Your task to perform on an android device: Open calendar and show me the third week of next month Image 0: 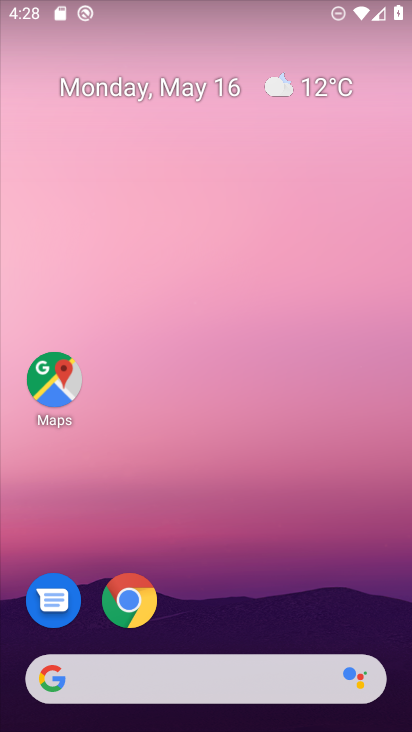
Step 0: drag from (339, 590) to (246, 117)
Your task to perform on an android device: Open calendar and show me the third week of next month Image 1: 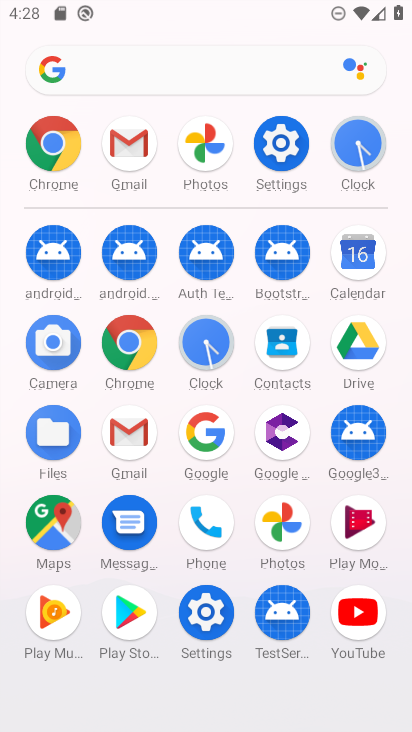
Step 1: click (365, 254)
Your task to perform on an android device: Open calendar and show me the third week of next month Image 2: 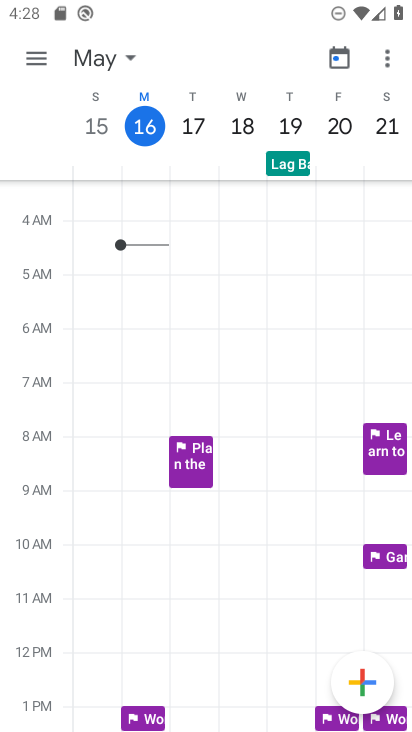
Step 2: click (111, 59)
Your task to perform on an android device: Open calendar and show me the third week of next month Image 3: 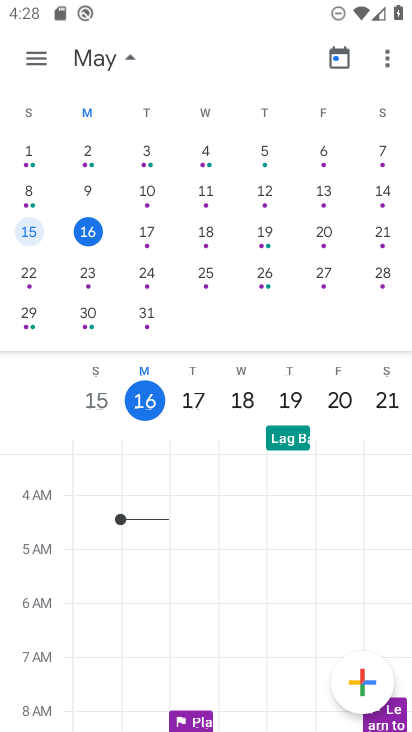
Step 3: drag from (334, 346) to (13, 295)
Your task to perform on an android device: Open calendar and show me the third week of next month Image 4: 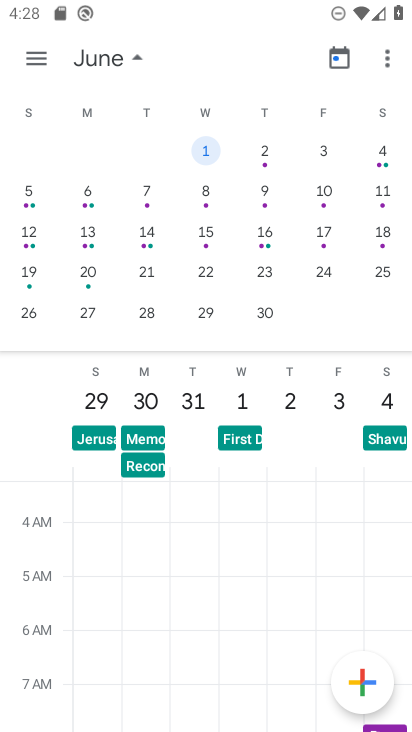
Step 4: click (33, 273)
Your task to perform on an android device: Open calendar and show me the third week of next month Image 5: 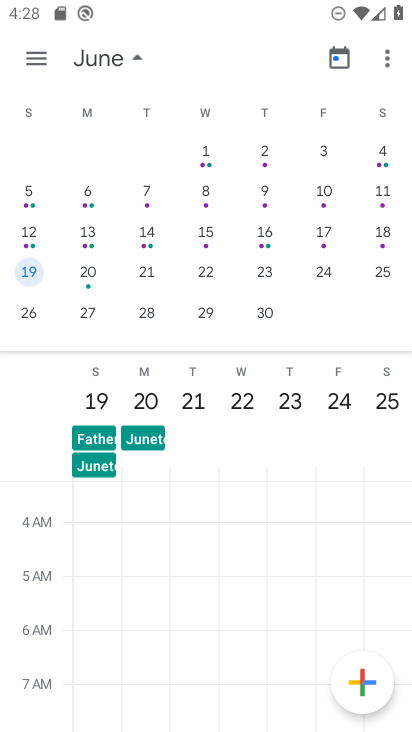
Step 5: task complete